Your task to perform on an android device: Open the phone app and click the voicemail tab. Image 0: 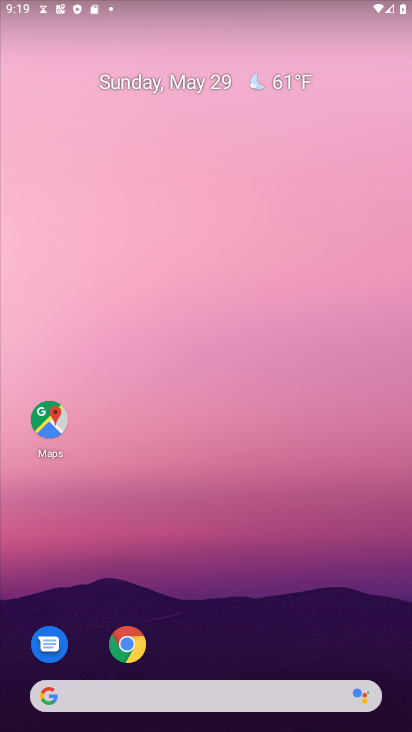
Step 0: drag from (286, 692) to (267, 106)
Your task to perform on an android device: Open the phone app and click the voicemail tab. Image 1: 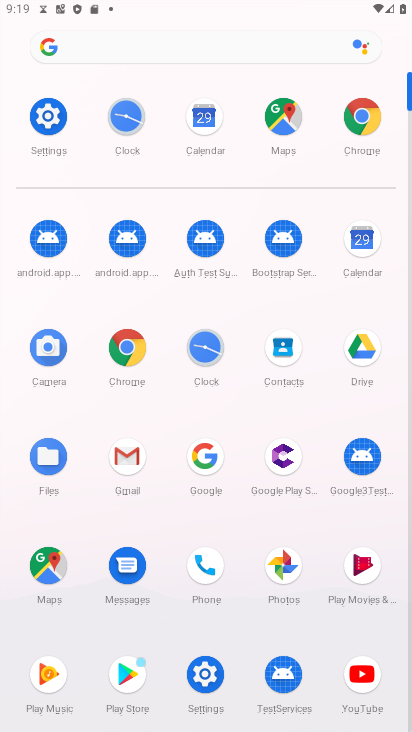
Step 1: click (212, 567)
Your task to perform on an android device: Open the phone app and click the voicemail tab. Image 2: 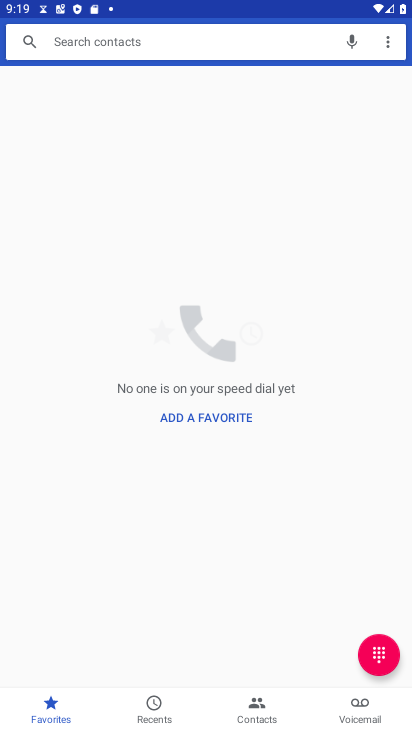
Step 2: click (374, 702)
Your task to perform on an android device: Open the phone app and click the voicemail tab. Image 3: 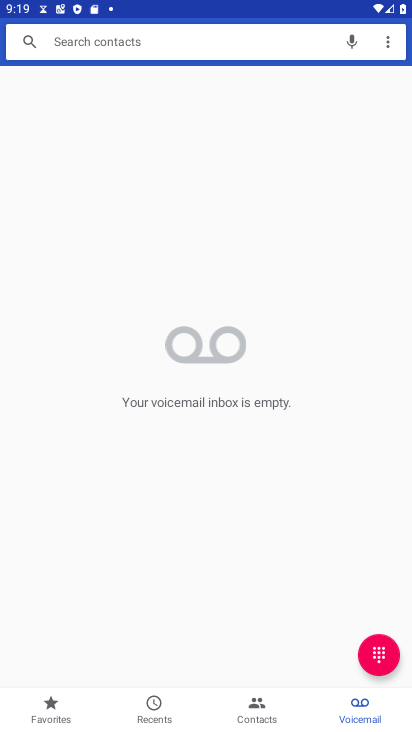
Step 3: task complete